Your task to perform on an android device: Open sound settings Image 0: 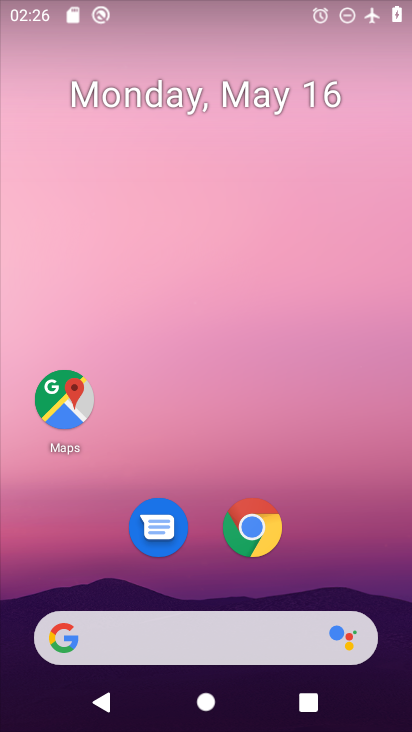
Step 0: drag from (359, 518) to (230, 16)
Your task to perform on an android device: Open sound settings Image 1: 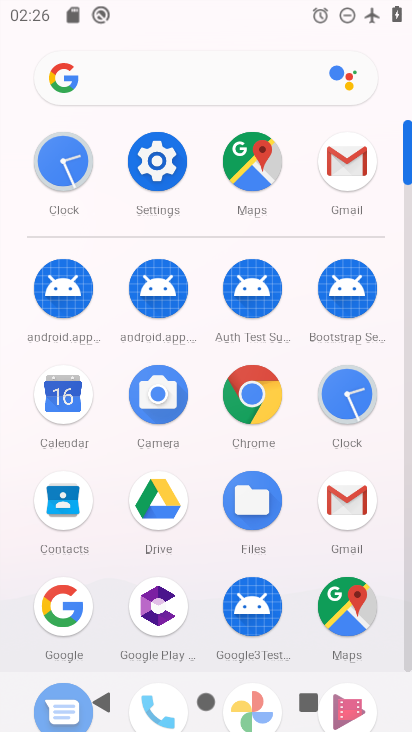
Step 1: click (164, 245)
Your task to perform on an android device: Open sound settings Image 2: 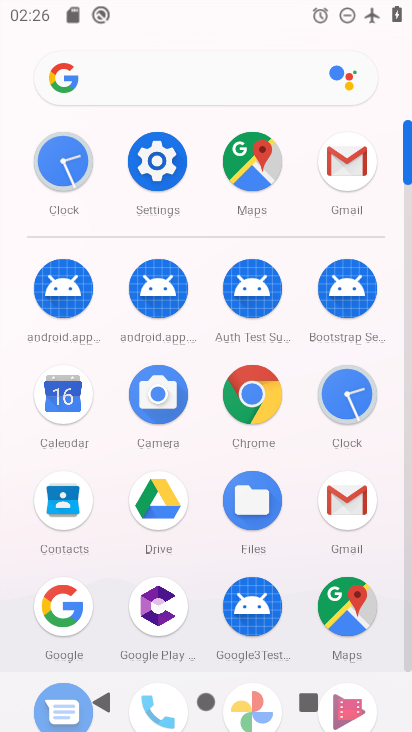
Step 2: click (171, 175)
Your task to perform on an android device: Open sound settings Image 3: 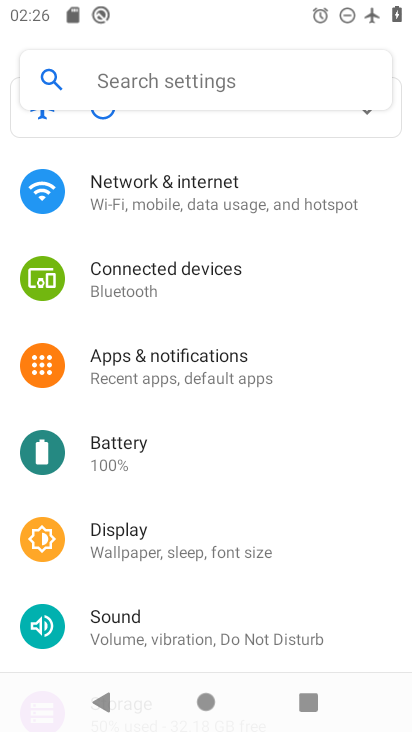
Step 3: click (153, 608)
Your task to perform on an android device: Open sound settings Image 4: 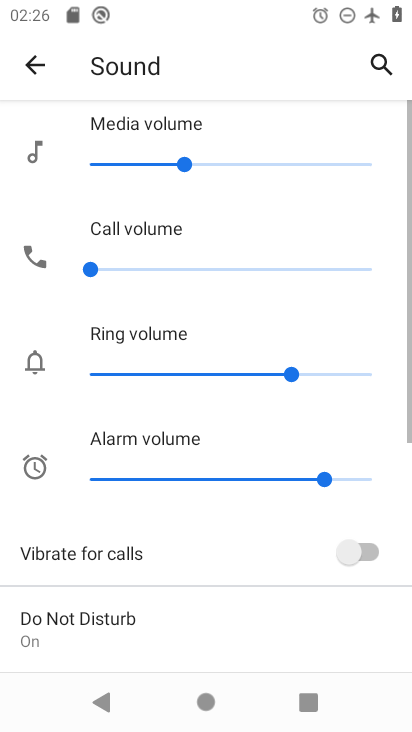
Step 4: task complete